Your task to perform on an android device: Go to Wikipedia Image 0: 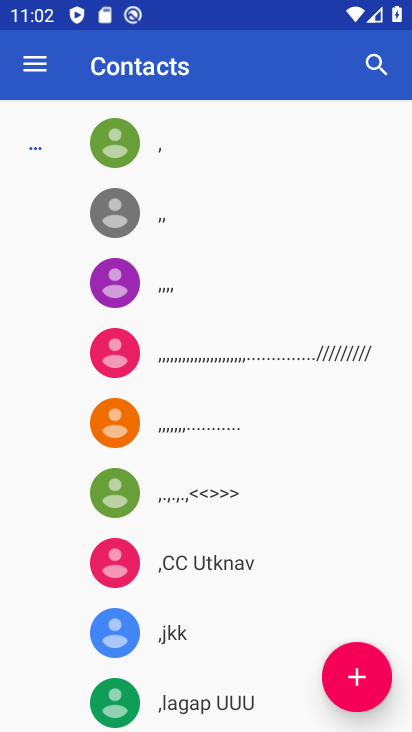
Step 0: press home button
Your task to perform on an android device: Go to Wikipedia Image 1: 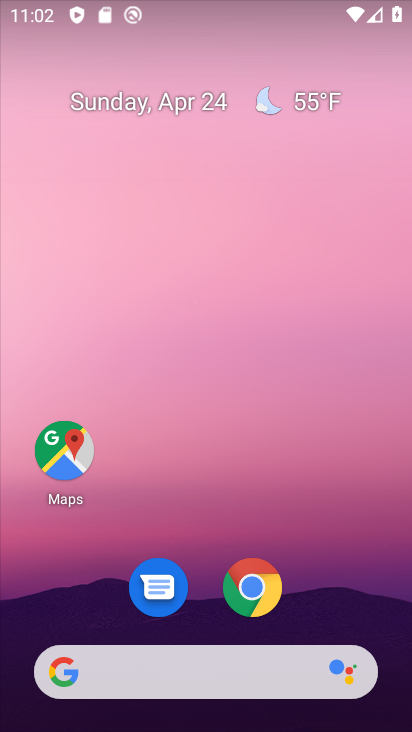
Step 1: drag from (392, 336) to (403, 60)
Your task to perform on an android device: Go to Wikipedia Image 2: 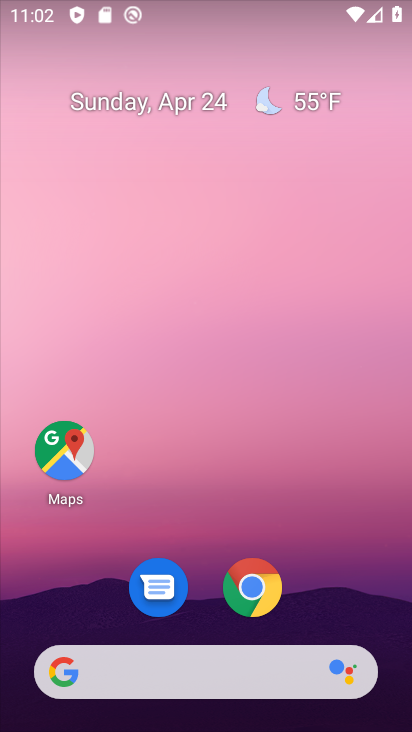
Step 2: drag from (335, 574) to (272, 25)
Your task to perform on an android device: Go to Wikipedia Image 3: 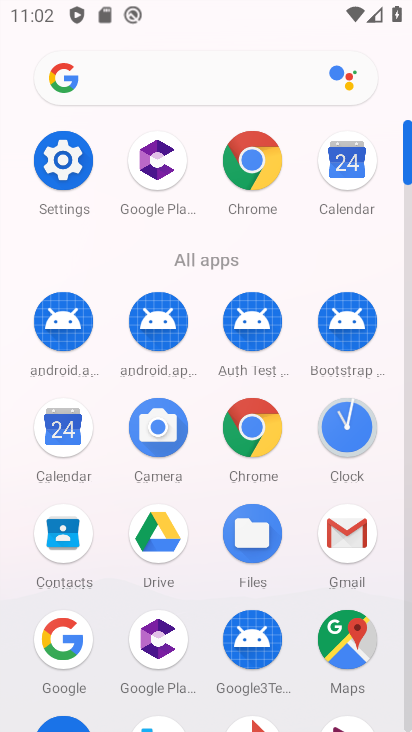
Step 3: click (45, 172)
Your task to perform on an android device: Go to Wikipedia Image 4: 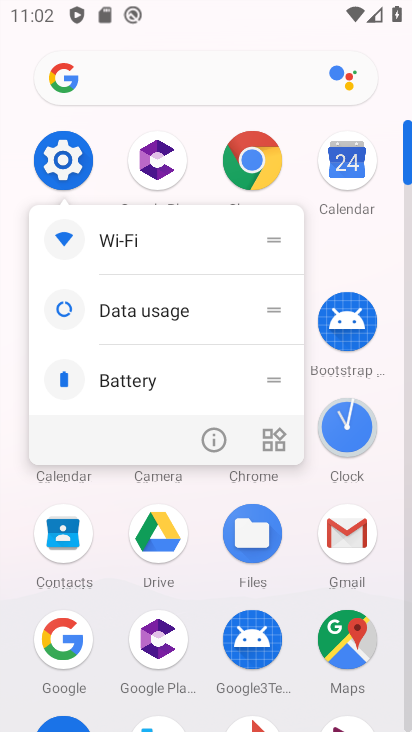
Step 4: click (45, 171)
Your task to perform on an android device: Go to Wikipedia Image 5: 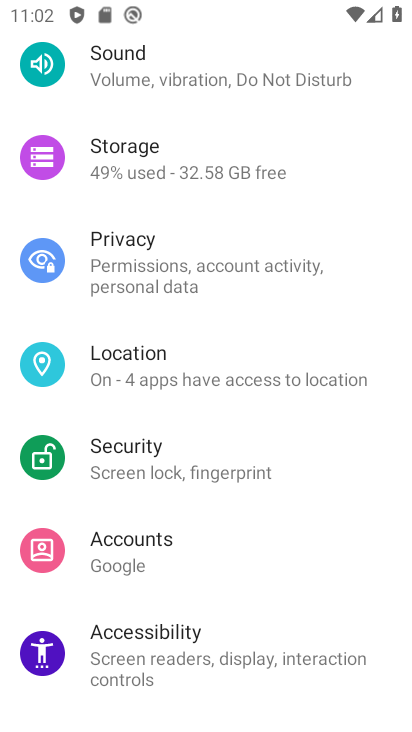
Step 5: press back button
Your task to perform on an android device: Go to Wikipedia Image 6: 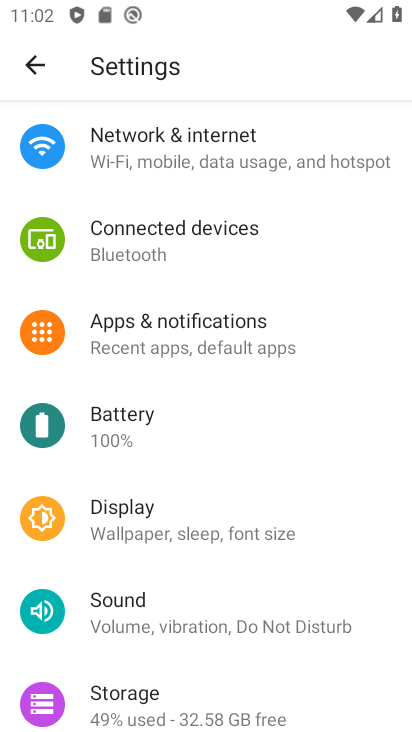
Step 6: press back button
Your task to perform on an android device: Go to Wikipedia Image 7: 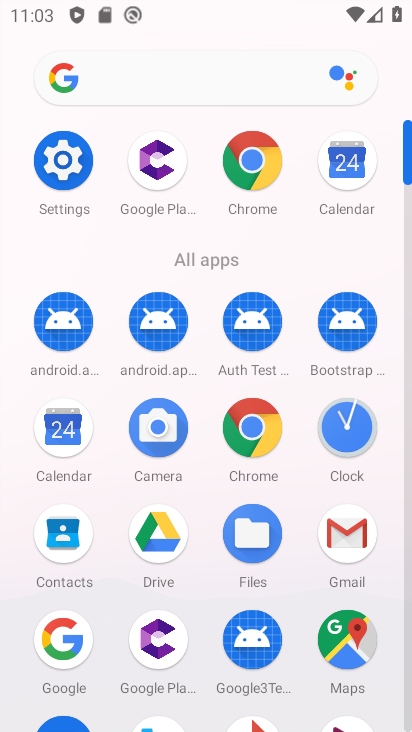
Step 7: click (249, 176)
Your task to perform on an android device: Go to Wikipedia Image 8: 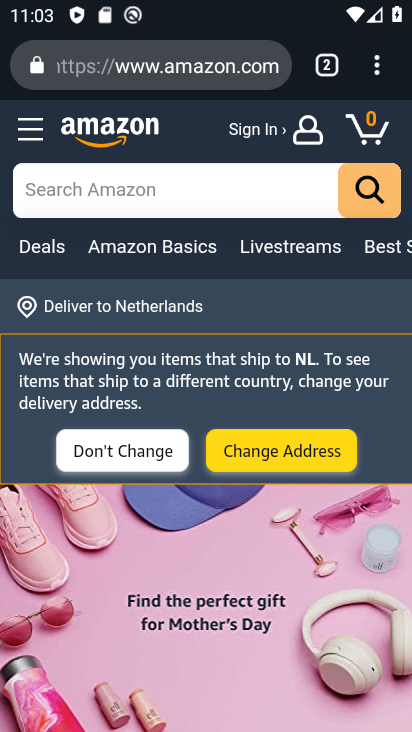
Step 8: drag from (383, 65) to (129, 137)
Your task to perform on an android device: Go to Wikipedia Image 9: 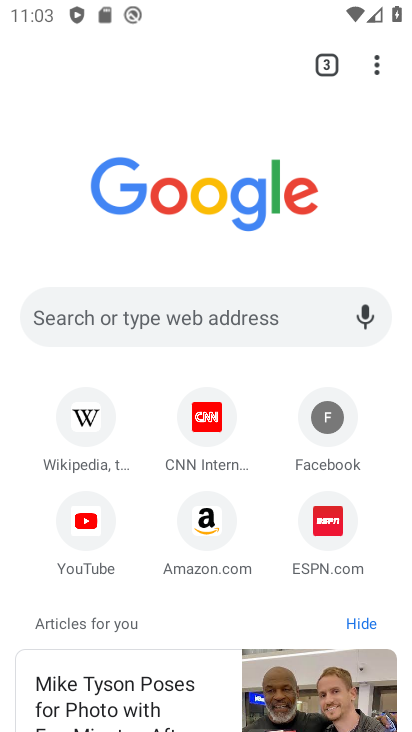
Step 9: click (76, 429)
Your task to perform on an android device: Go to Wikipedia Image 10: 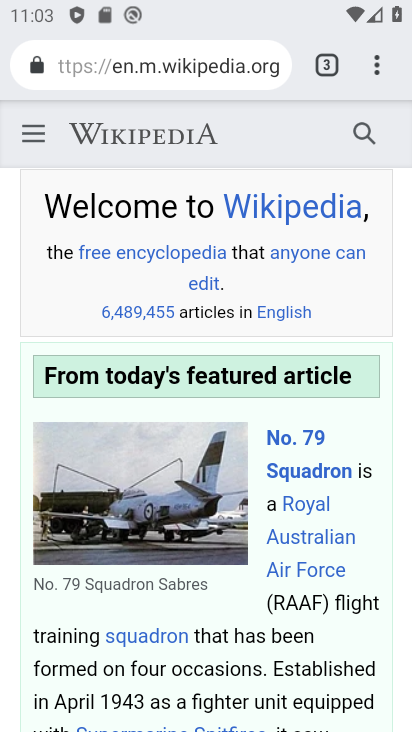
Step 10: task complete